Your task to perform on an android device: turn on showing notifications on the lock screen Image 0: 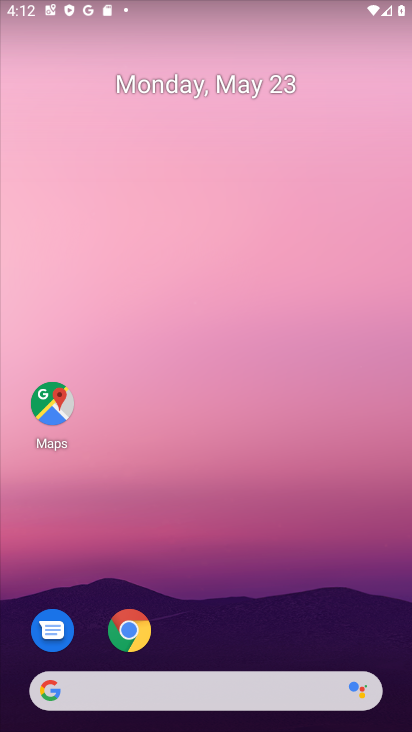
Step 0: drag from (218, 524) to (218, 66)
Your task to perform on an android device: turn on showing notifications on the lock screen Image 1: 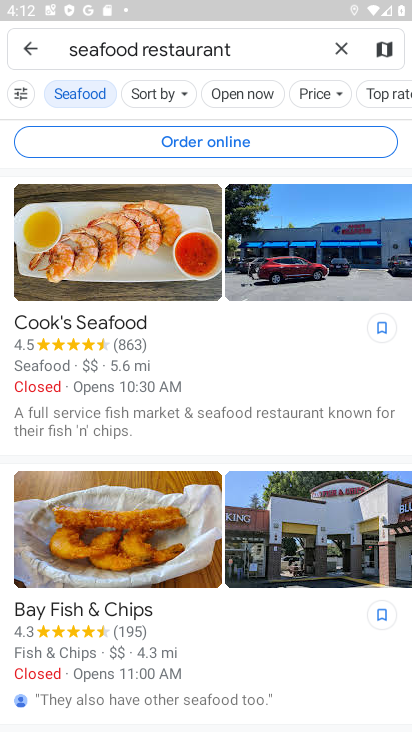
Step 1: press home button
Your task to perform on an android device: turn on showing notifications on the lock screen Image 2: 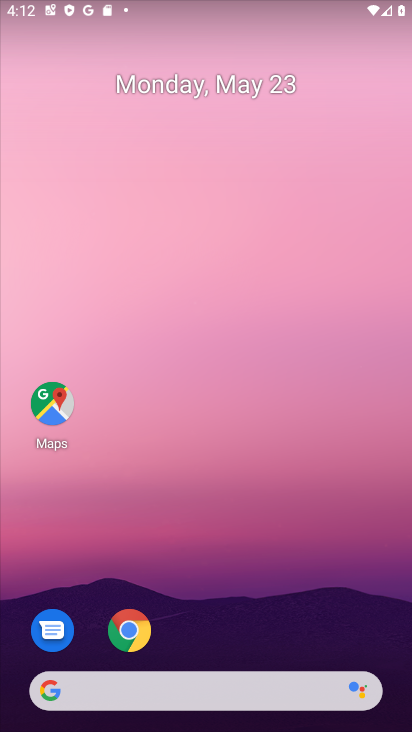
Step 2: drag from (208, 649) to (241, 26)
Your task to perform on an android device: turn on showing notifications on the lock screen Image 3: 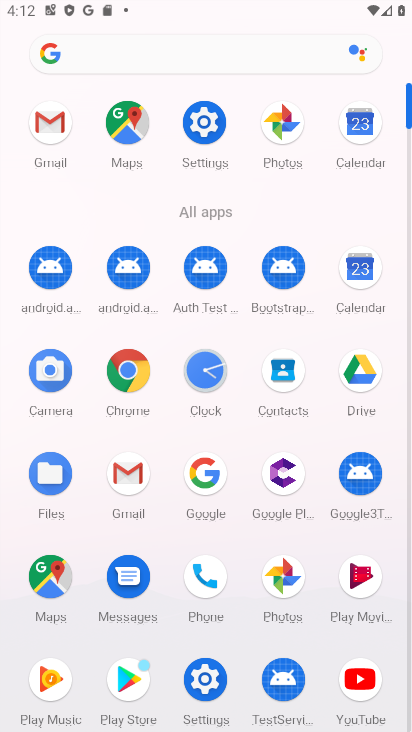
Step 3: click (205, 120)
Your task to perform on an android device: turn on showing notifications on the lock screen Image 4: 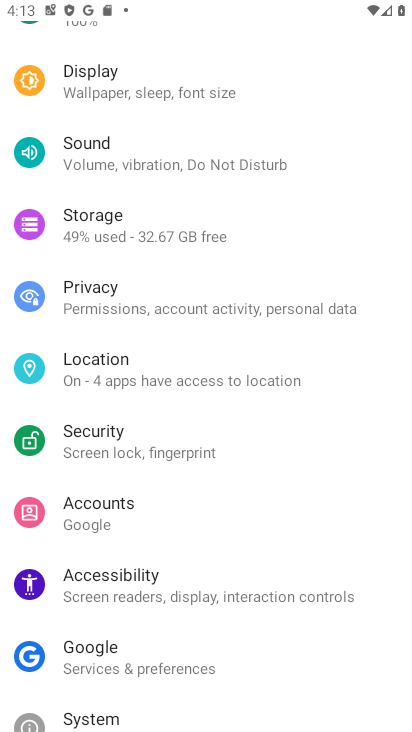
Step 4: drag from (121, 100) to (137, 562)
Your task to perform on an android device: turn on showing notifications on the lock screen Image 5: 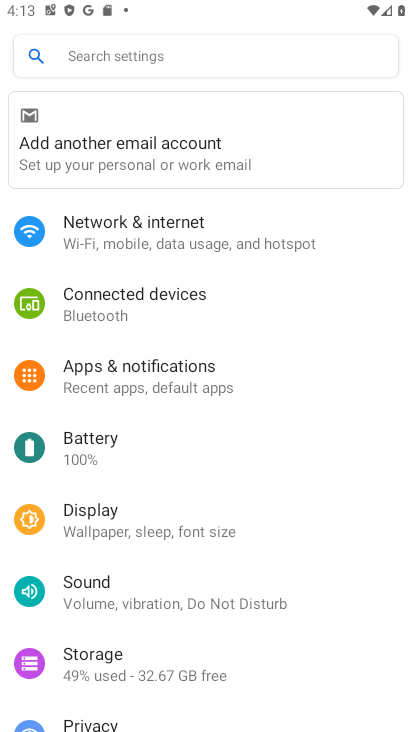
Step 5: click (238, 368)
Your task to perform on an android device: turn on showing notifications on the lock screen Image 6: 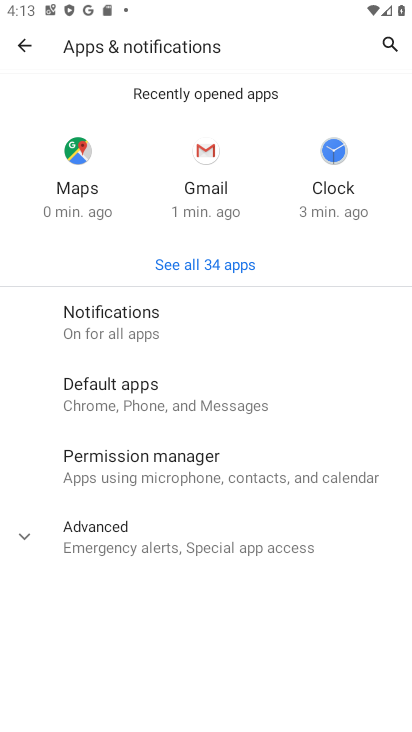
Step 6: click (172, 318)
Your task to perform on an android device: turn on showing notifications on the lock screen Image 7: 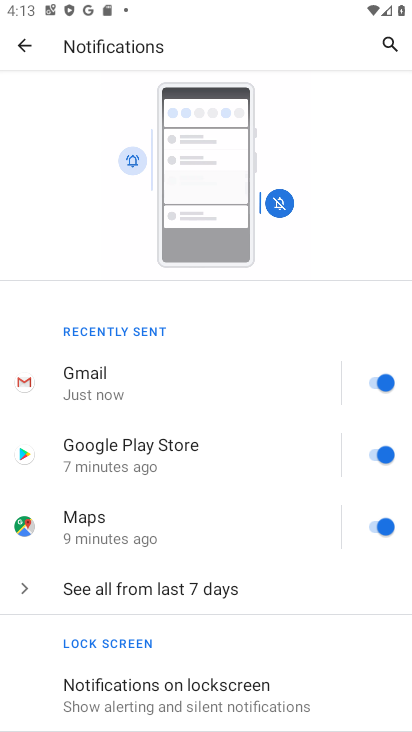
Step 7: drag from (255, 614) to (264, 345)
Your task to perform on an android device: turn on showing notifications on the lock screen Image 8: 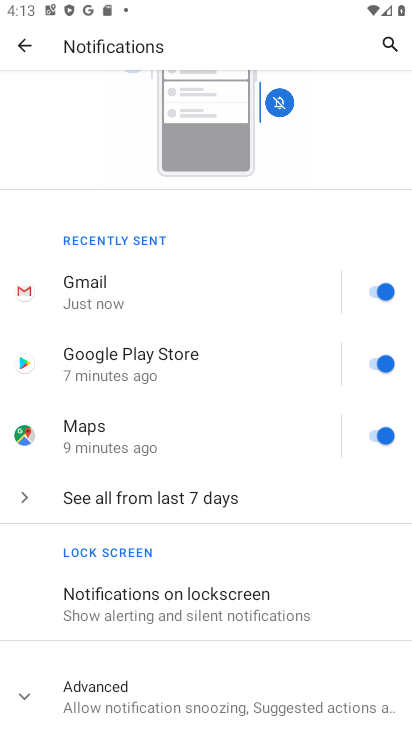
Step 8: click (283, 590)
Your task to perform on an android device: turn on showing notifications on the lock screen Image 9: 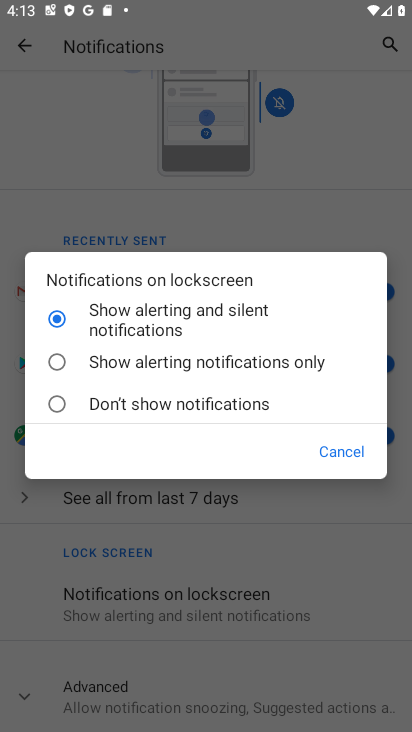
Step 9: click (58, 360)
Your task to perform on an android device: turn on showing notifications on the lock screen Image 10: 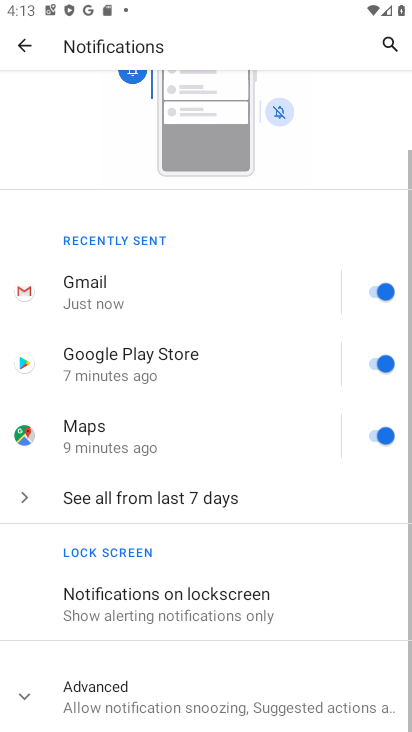
Step 10: task complete